Your task to perform on an android device: allow notifications from all sites in the chrome app Image 0: 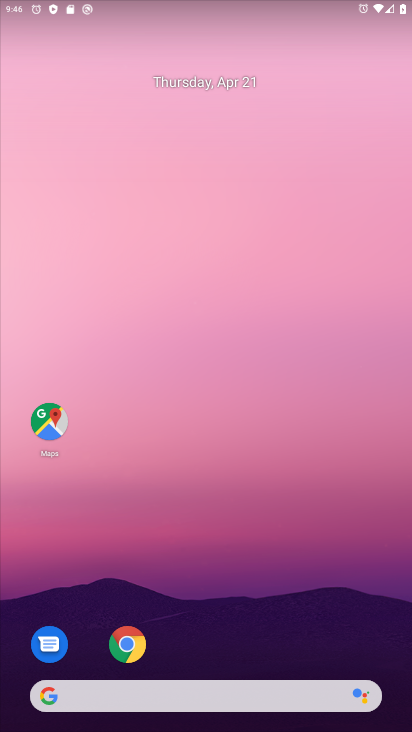
Step 0: click (127, 636)
Your task to perform on an android device: allow notifications from all sites in the chrome app Image 1: 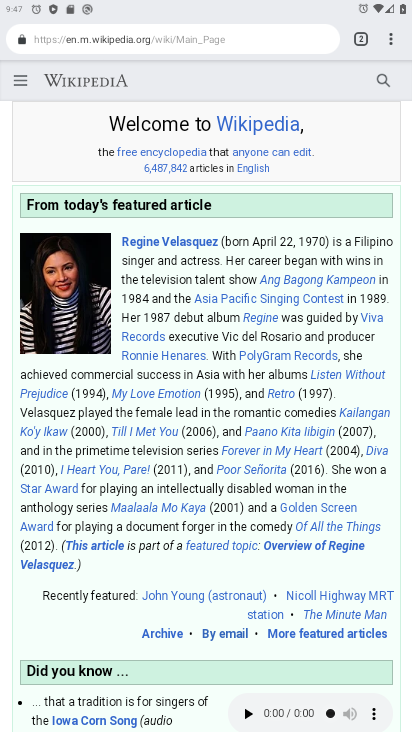
Step 1: click (391, 36)
Your task to perform on an android device: allow notifications from all sites in the chrome app Image 2: 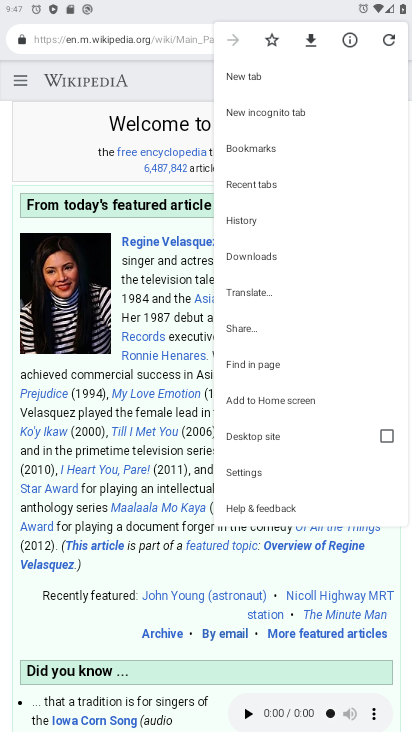
Step 2: click (254, 481)
Your task to perform on an android device: allow notifications from all sites in the chrome app Image 3: 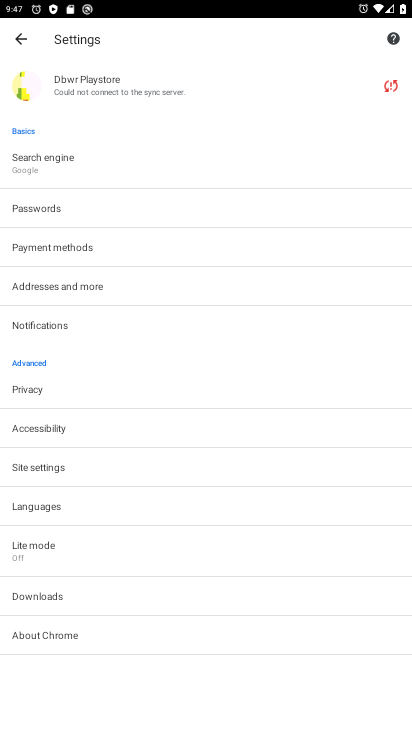
Step 3: click (108, 468)
Your task to perform on an android device: allow notifications from all sites in the chrome app Image 4: 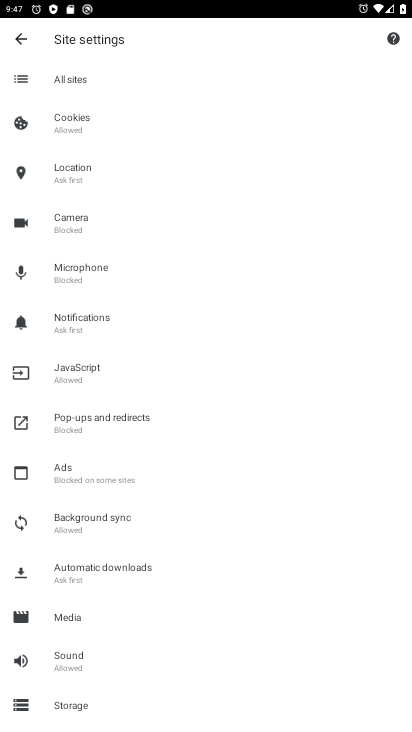
Step 4: click (128, 321)
Your task to perform on an android device: allow notifications from all sites in the chrome app Image 5: 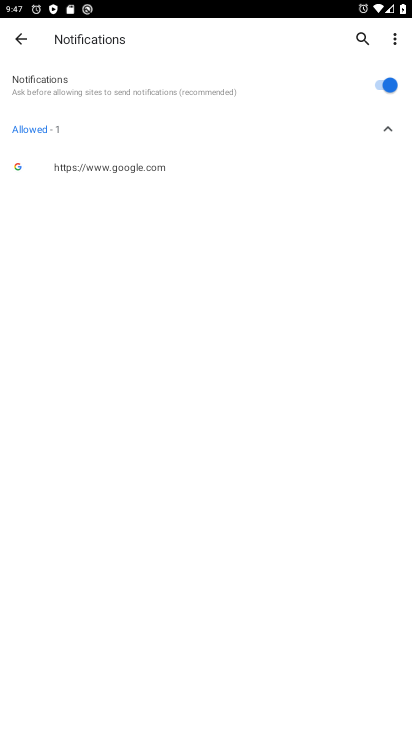
Step 5: task complete